Your task to perform on an android device: turn smart compose on in the gmail app Image 0: 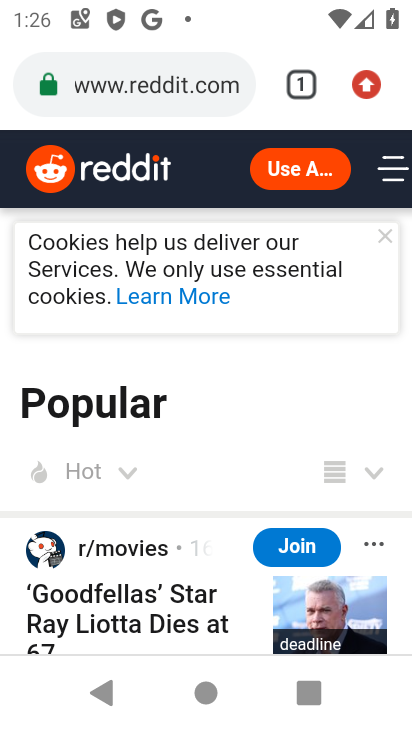
Step 0: press home button
Your task to perform on an android device: turn smart compose on in the gmail app Image 1: 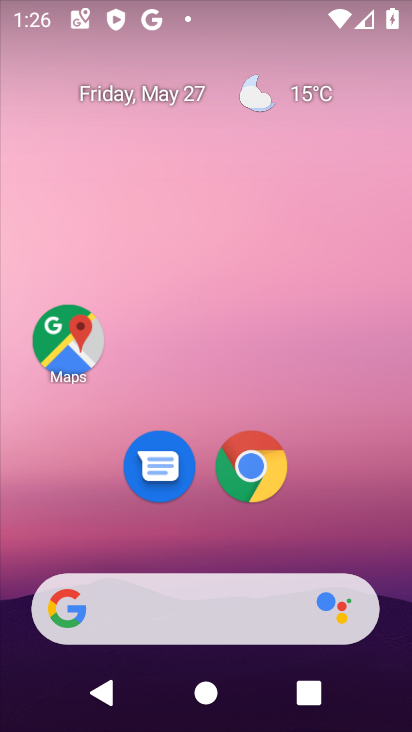
Step 1: drag from (127, 575) to (194, 18)
Your task to perform on an android device: turn smart compose on in the gmail app Image 2: 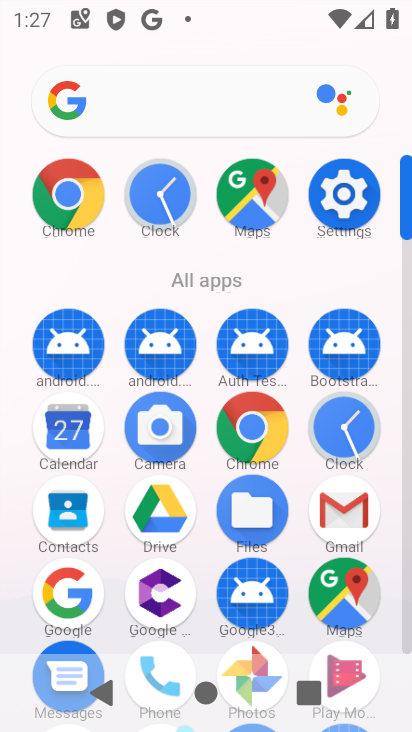
Step 2: drag from (154, 519) to (226, 265)
Your task to perform on an android device: turn smart compose on in the gmail app Image 3: 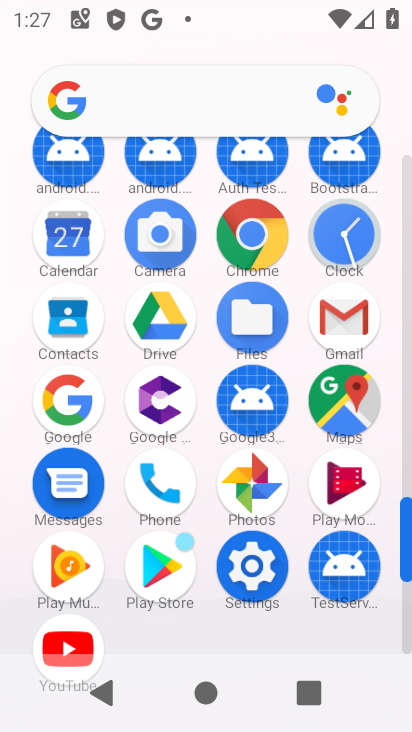
Step 3: click (347, 304)
Your task to perform on an android device: turn smart compose on in the gmail app Image 4: 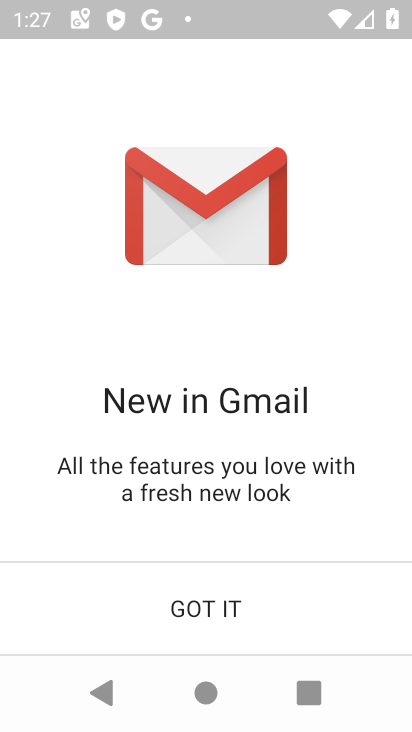
Step 4: click (221, 593)
Your task to perform on an android device: turn smart compose on in the gmail app Image 5: 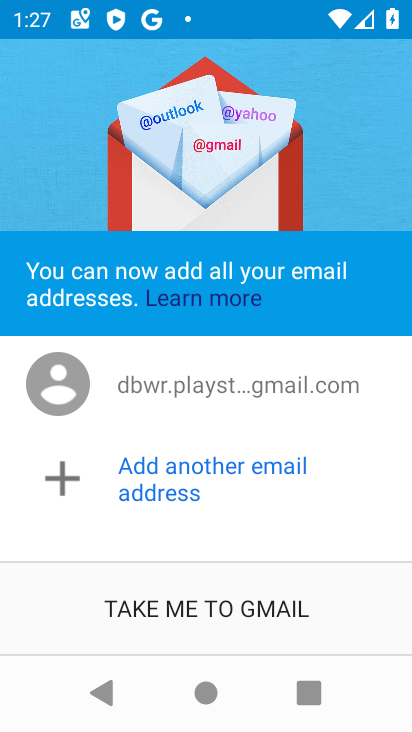
Step 5: click (233, 637)
Your task to perform on an android device: turn smart compose on in the gmail app Image 6: 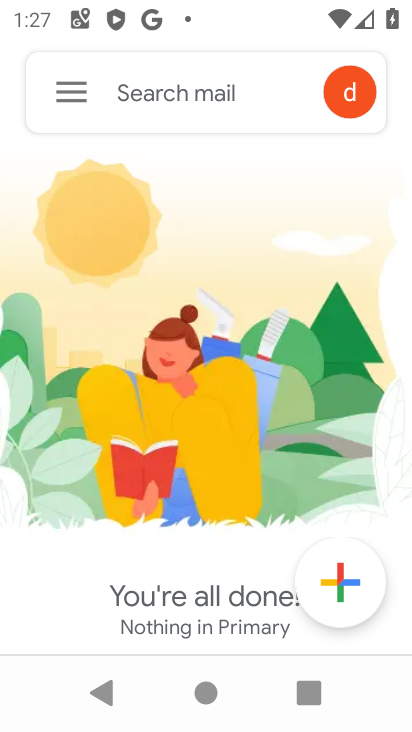
Step 6: click (77, 100)
Your task to perform on an android device: turn smart compose on in the gmail app Image 7: 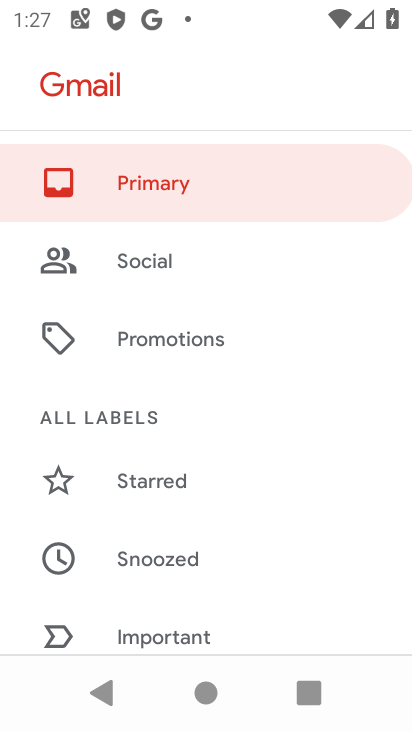
Step 7: drag from (191, 587) to (319, 141)
Your task to perform on an android device: turn smart compose on in the gmail app Image 8: 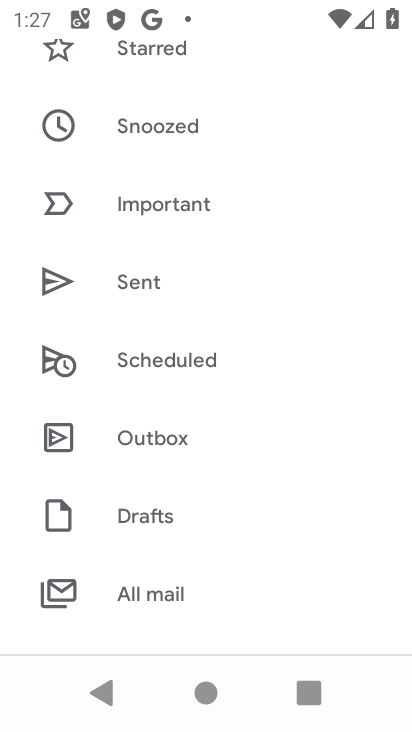
Step 8: drag from (257, 589) to (358, 165)
Your task to perform on an android device: turn smart compose on in the gmail app Image 9: 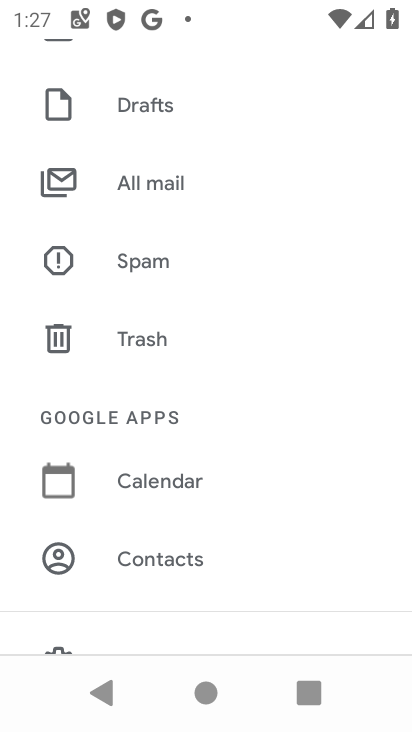
Step 9: drag from (200, 512) to (318, 68)
Your task to perform on an android device: turn smart compose on in the gmail app Image 10: 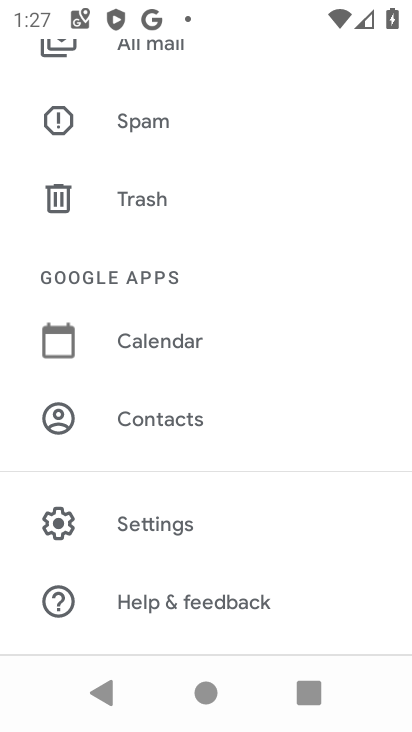
Step 10: click (199, 536)
Your task to perform on an android device: turn smart compose on in the gmail app Image 11: 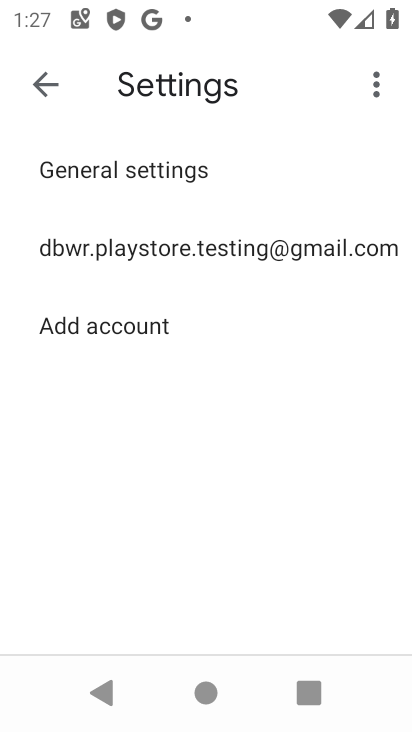
Step 11: click (299, 240)
Your task to perform on an android device: turn smart compose on in the gmail app Image 12: 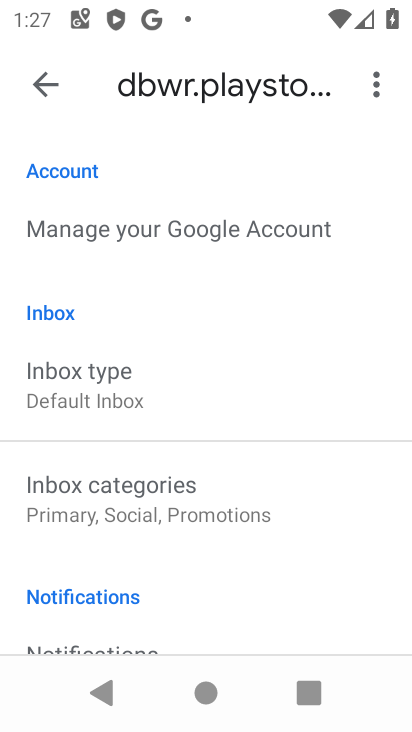
Step 12: task complete